Your task to perform on an android device: open chrome privacy settings Image 0: 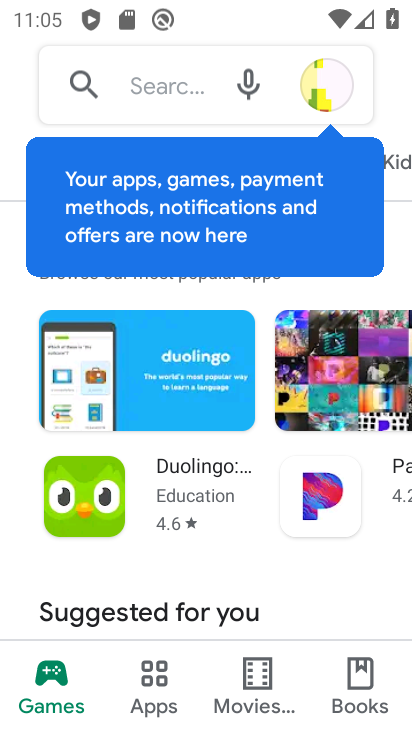
Step 0: press home button
Your task to perform on an android device: open chrome privacy settings Image 1: 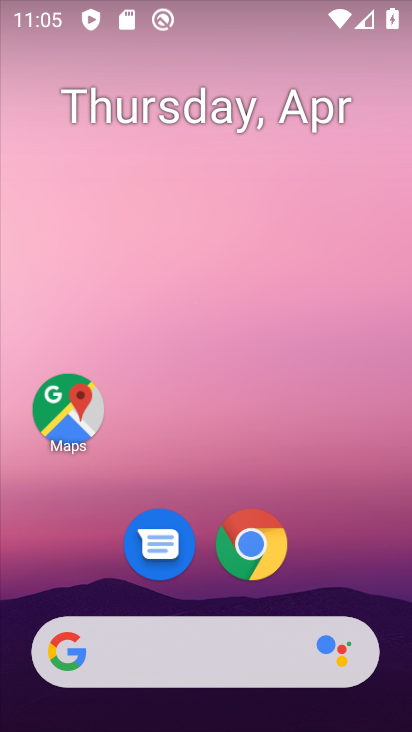
Step 1: click (251, 548)
Your task to perform on an android device: open chrome privacy settings Image 2: 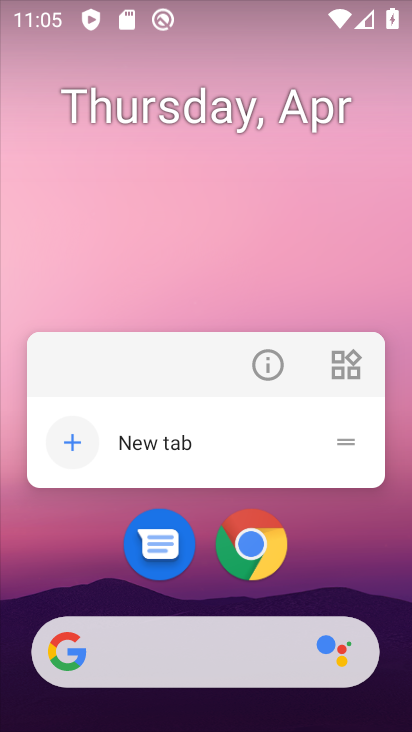
Step 2: click (289, 367)
Your task to perform on an android device: open chrome privacy settings Image 3: 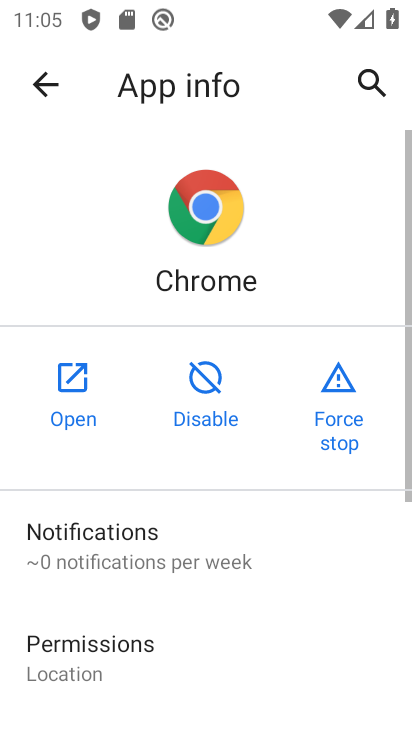
Step 3: click (55, 388)
Your task to perform on an android device: open chrome privacy settings Image 4: 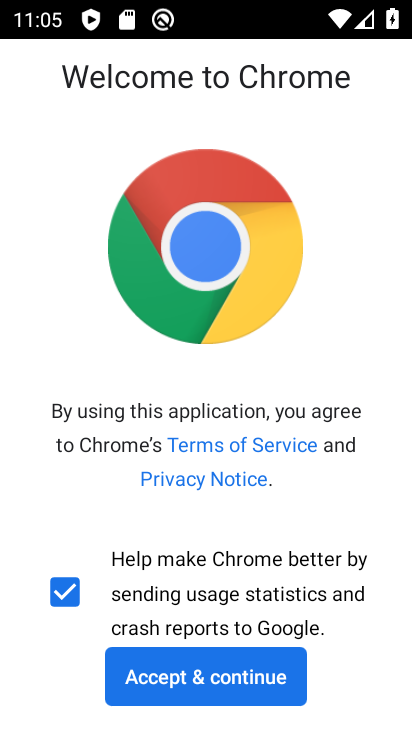
Step 4: click (187, 670)
Your task to perform on an android device: open chrome privacy settings Image 5: 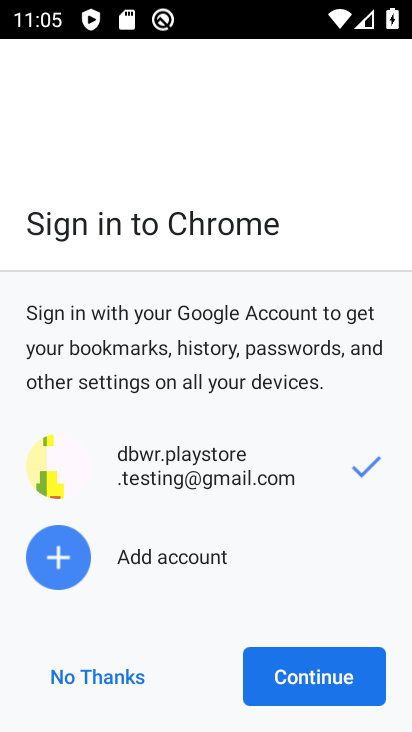
Step 5: click (96, 682)
Your task to perform on an android device: open chrome privacy settings Image 6: 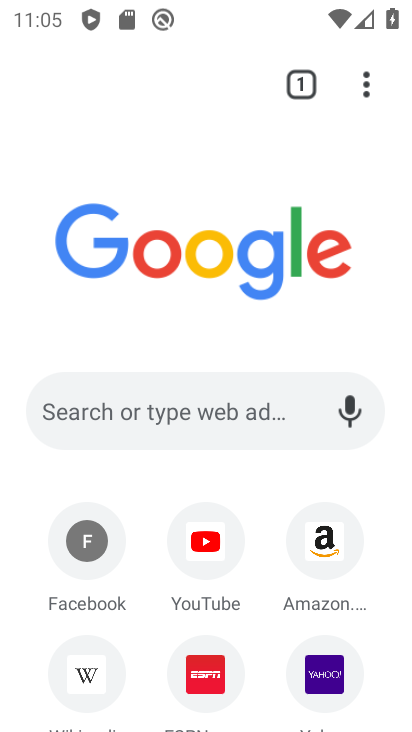
Step 6: click (363, 85)
Your task to perform on an android device: open chrome privacy settings Image 7: 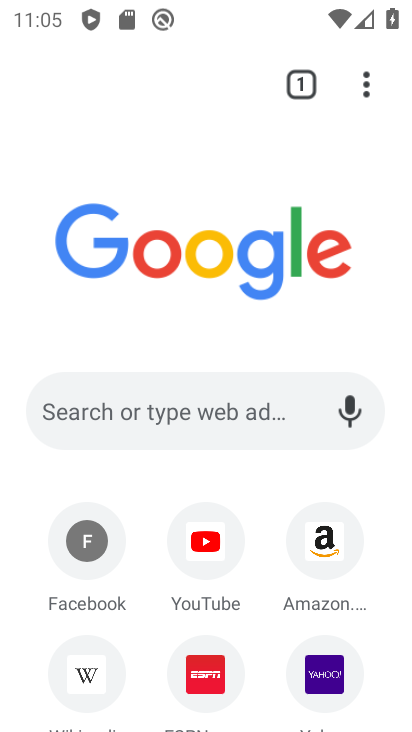
Step 7: click (375, 81)
Your task to perform on an android device: open chrome privacy settings Image 8: 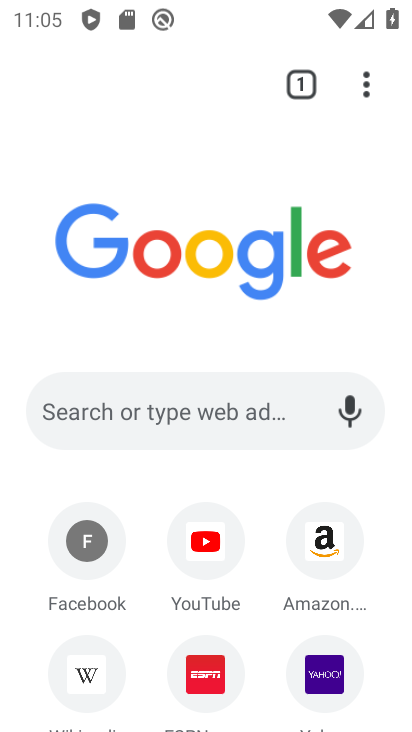
Step 8: click (369, 88)
Your task to perform on an android device: open chrome privacy settings Image 9: 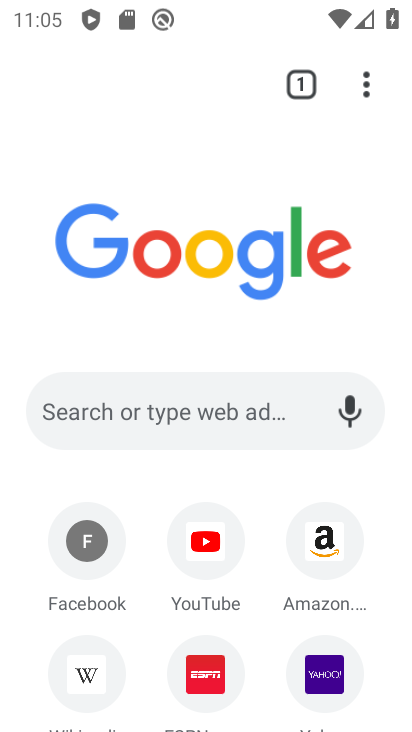
Step 9: drag from (401, 132) to (373, 81)
Your task to perform on an android device: open chrome privacy settings Image 10: 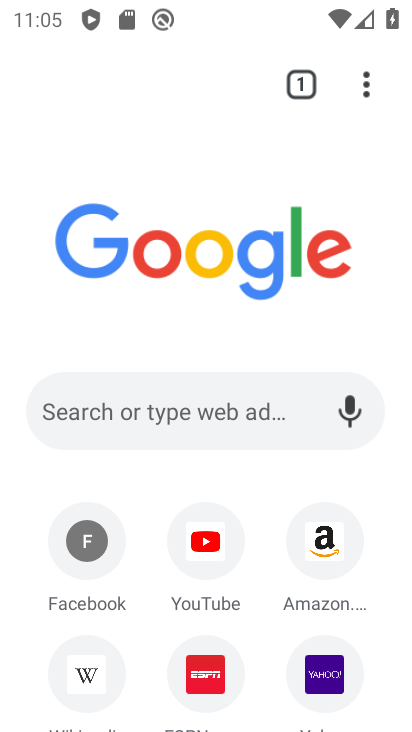
Step 10: drag from (406, 129) to (359, 71)
Your task to perform on an android device: open chrome privacy settings Image 11: 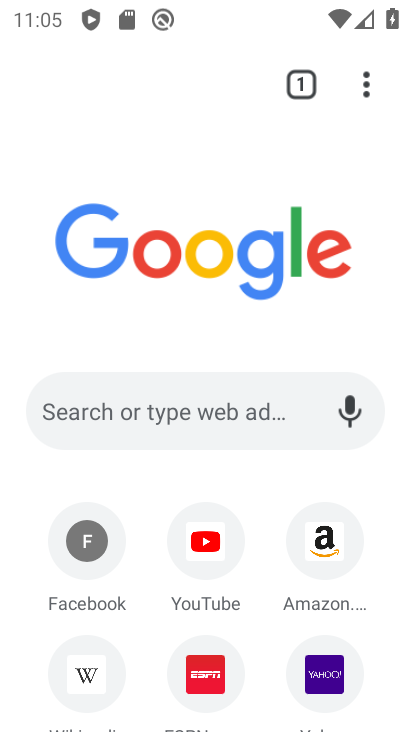
Step 11: drag from (406, 129) to (370, 71)
Your task to perform on an android device: open chrome privacy settings Image 12: 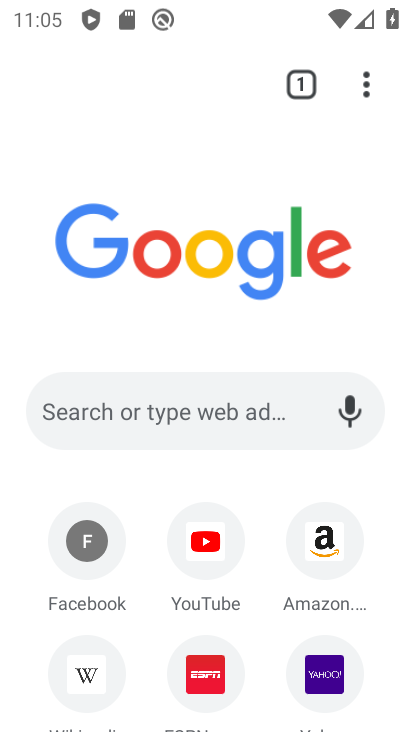
Step 12: click (363, 80)
Your task to perform on an android device: open chrome privacy settings Image 13: 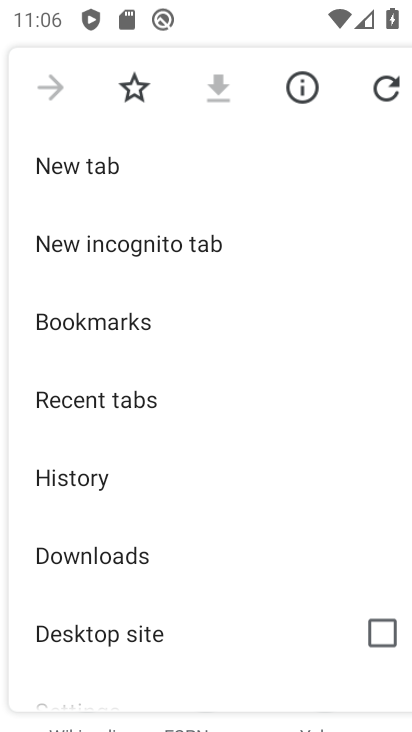
Step 13: drag from (80, 628) to (221, 177)
Your task to perform on an android device: open chrome privacy settings Image 14: 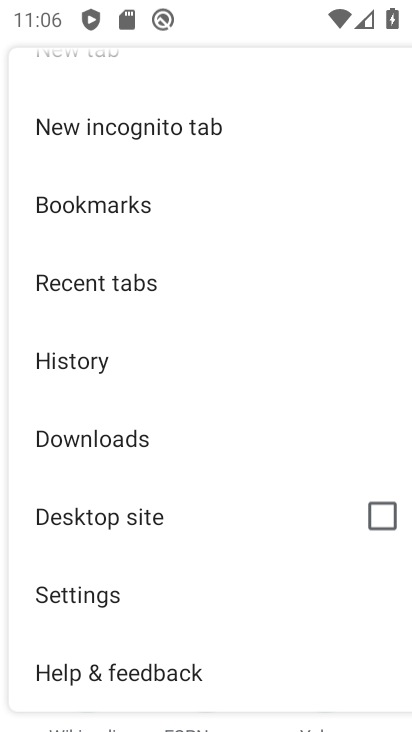
Step 14: click (110, 594)
Your task to perform on an android device: open chrome privacy settings Image 15: 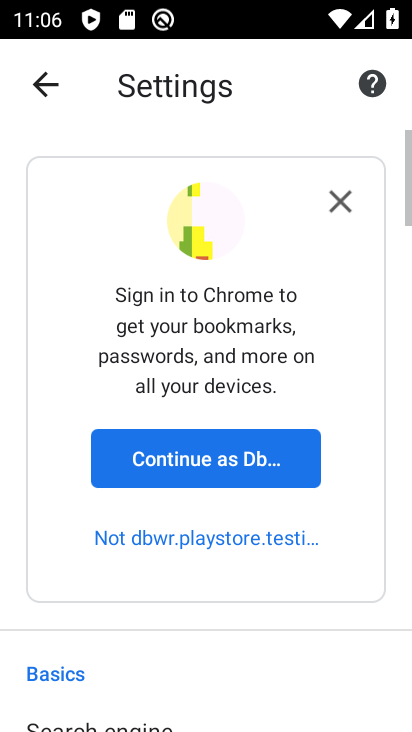
Step 15: click (335, 201)
Your task to perform on an android device: open chrome privacy settings Image 16: 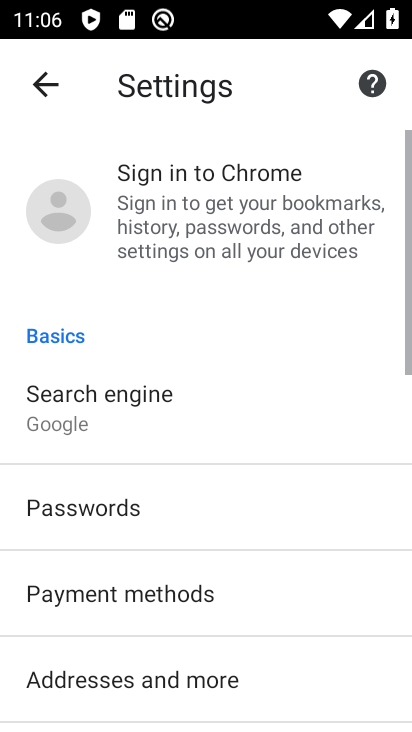
Step 16: drag from (43, 658) to (210, 284)
Your task to perform on an android device: open chrome privacy settings Image 17: 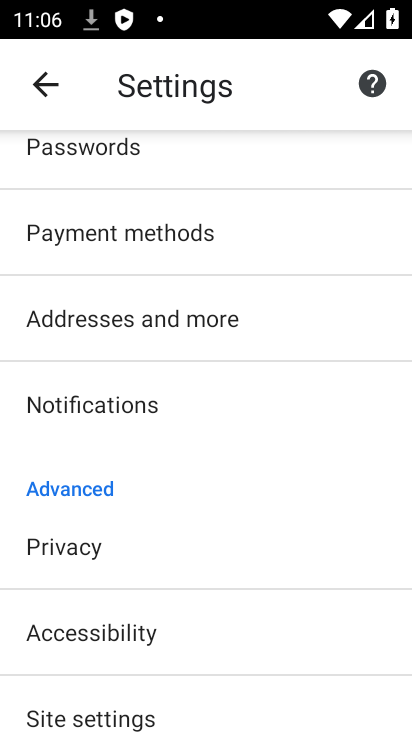
Step 17: click (154, 542)
Your task to perform on an android device: open chrome privacy settings Image 18: 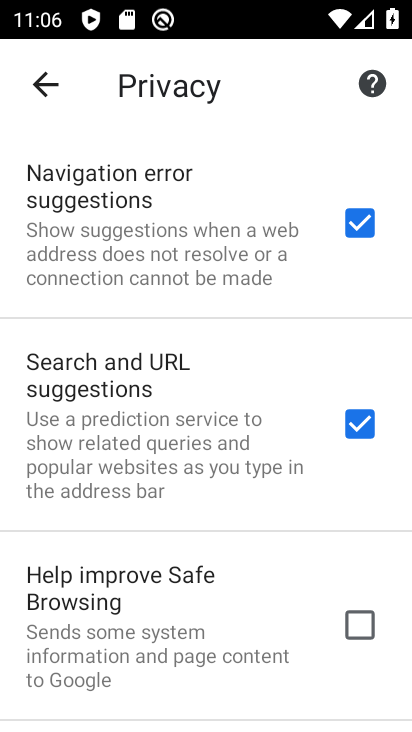
Step 18: task complete